Your task to perform on an android device: What's the weather going to be tomorrow? Image 0: 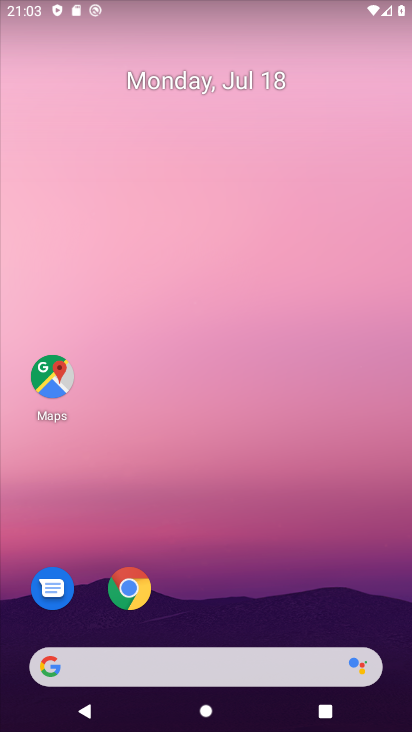
Step 0: press home button
Your task to perform on an android device: What's the weather going to be tomorrow? Image 1: 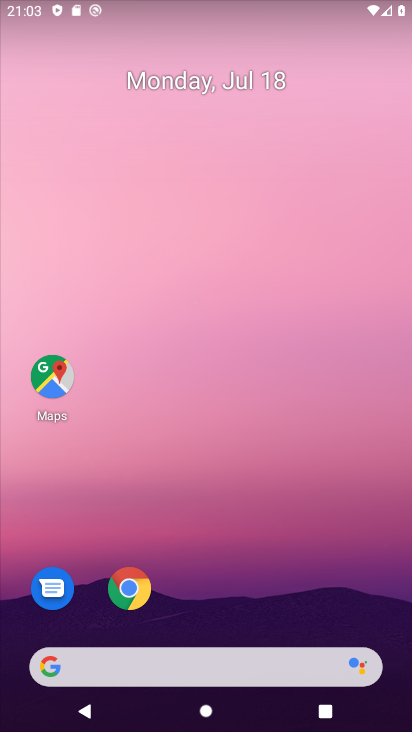
Step 1: click (136, 667)
Your task to perform on an android device: What's the weather going to be tomorrow? Image 2: 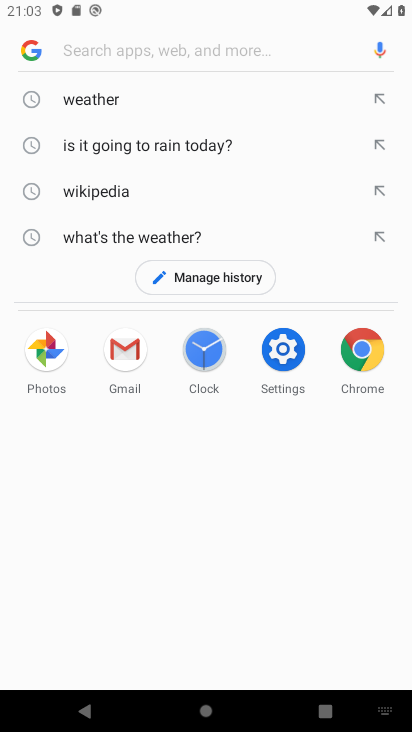
Step 2: click (93, 103)
Your task to perform on an android device: What's the weather going to be tomorrow? Image 3: 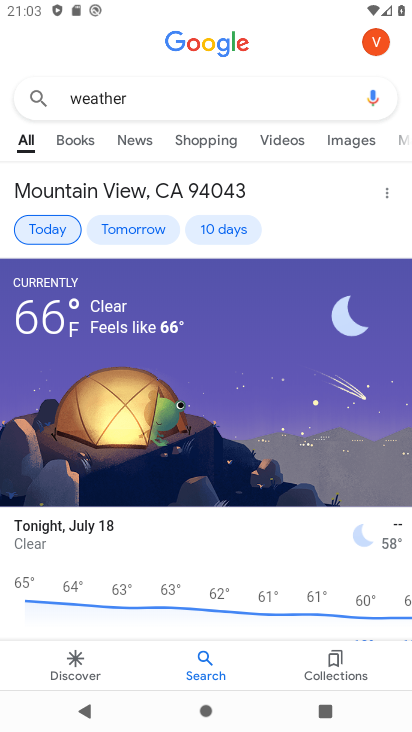
Step 3: click (131, 224)
Your task to perform on an android device: What's the weather going to be tomorrow? Image 4: 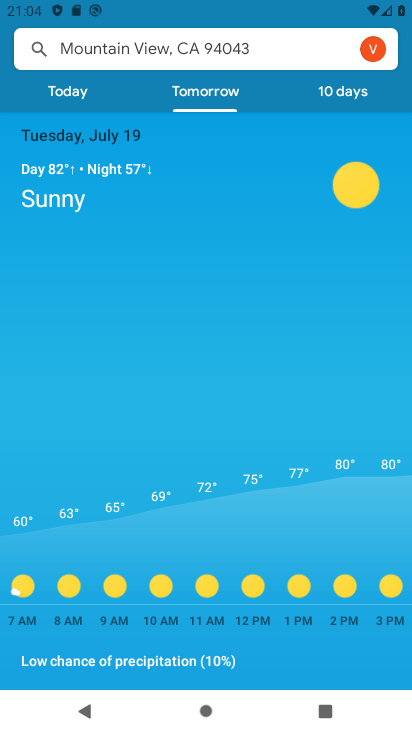
Step 4: task complete